Your task to perform on an android device: turn notification dots on Image 0: 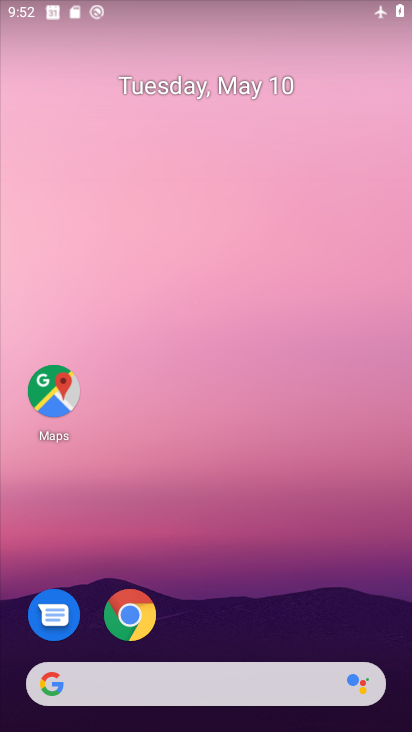
Step 0: drag from (197, 658) to (214, 156)
Your task to perform on an android device: turn notification dots on Image 1: 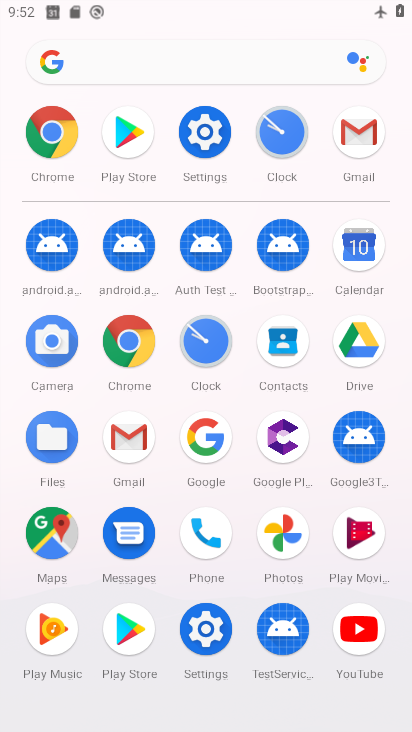
Step 1: click (193, 636)
Your task to perform on an android device: turn notification dots on Image 2: 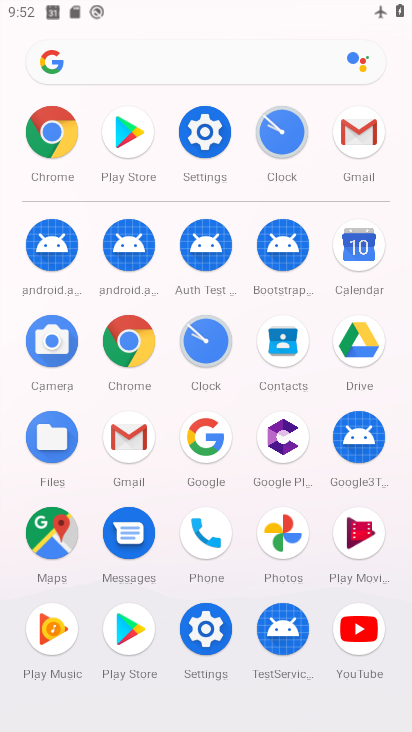
Step 2: click (193, 636)
Your task to perform on an android device: turn notification dots on Image 3: 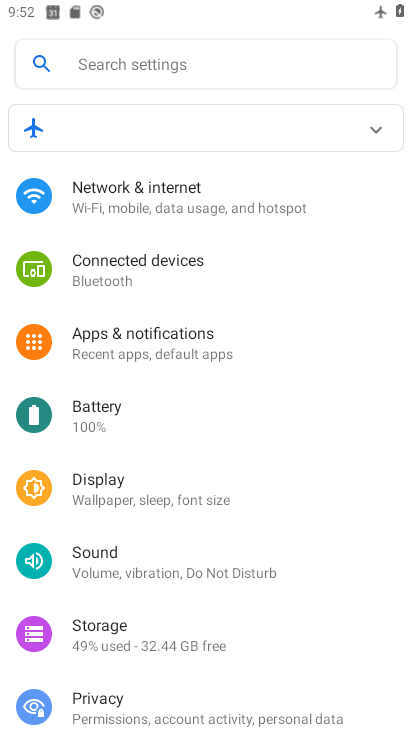
Step 3: click (174, 348)
Your task to perform on an android device: turn notification dots on Image 4: 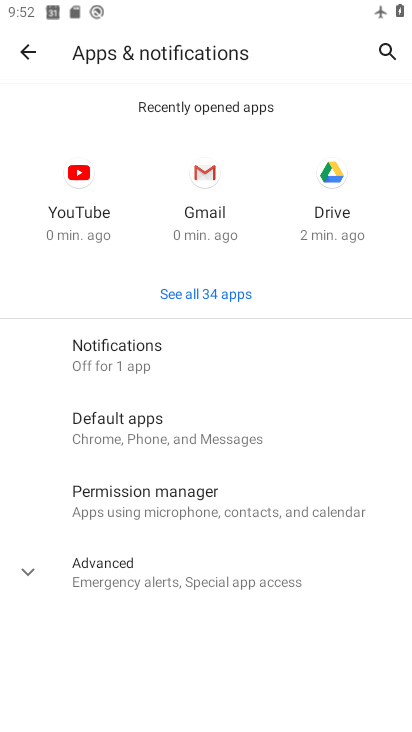
Step 4: click (153, 343)
Your task to perform on an android device: turn notification dots on Image 5: 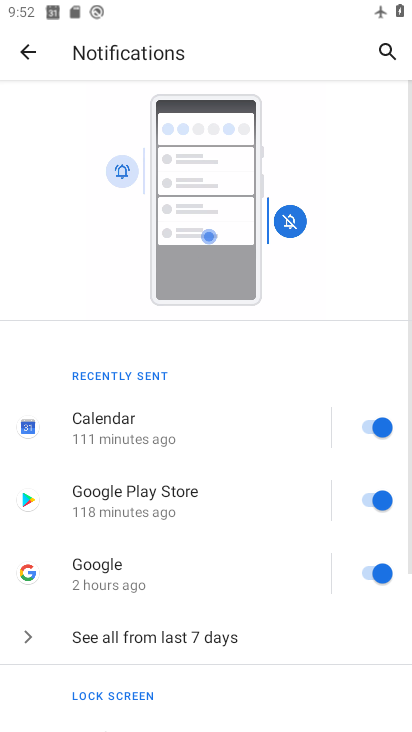
Step 5: drag from (216, 643) to (245, 101)
Your task to perform on an android device: turn notification dots on Image 6: 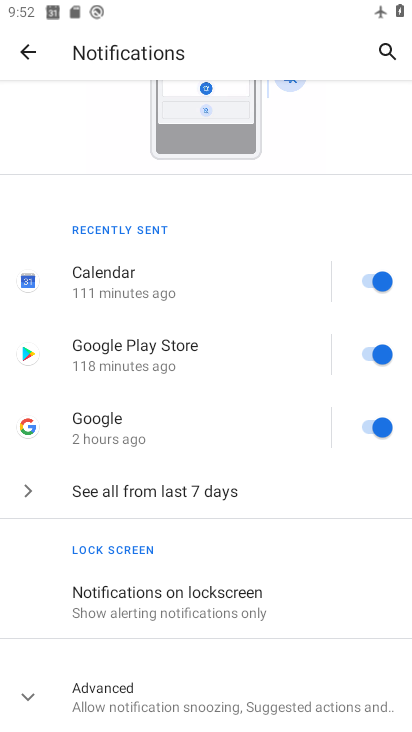
Step 6: click (127, 682)
Your task to perform on an android device: turn notification dots on Image 7: 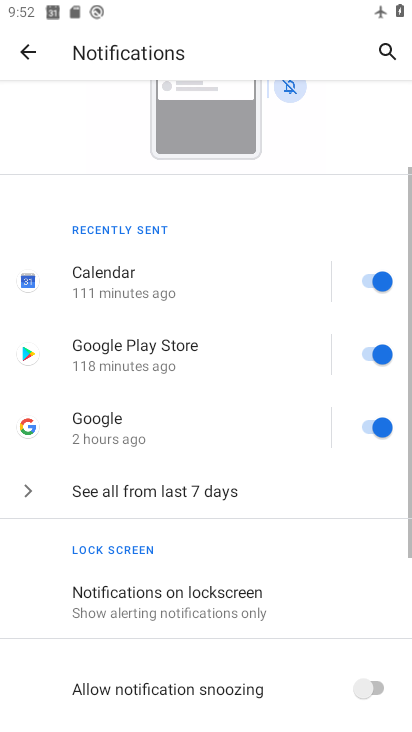
Step 7: drag from (121, 672) to (151, 174)
Your task to perform on an android device: turn notification dots on Image 8: 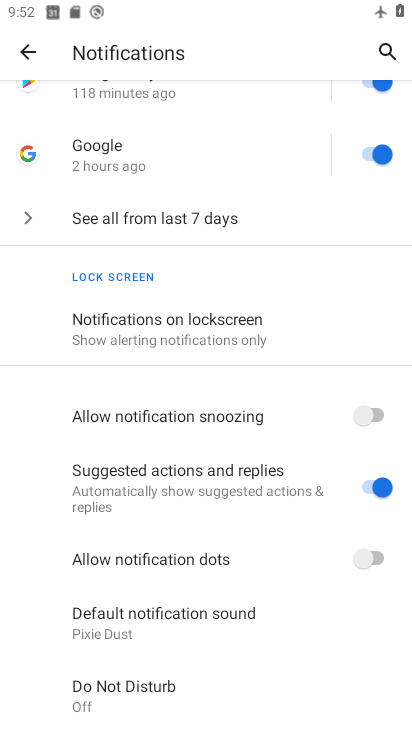
Step 8: click (357, 556)
Your task to perform on an android device: turn notification dots on Image 9: 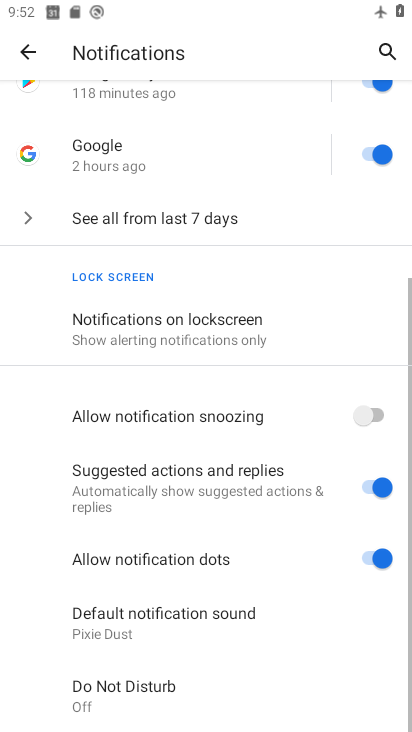
Step 9: task complete